Your task to perform on an android device: turn smart compose on in the gmail app Image 0: 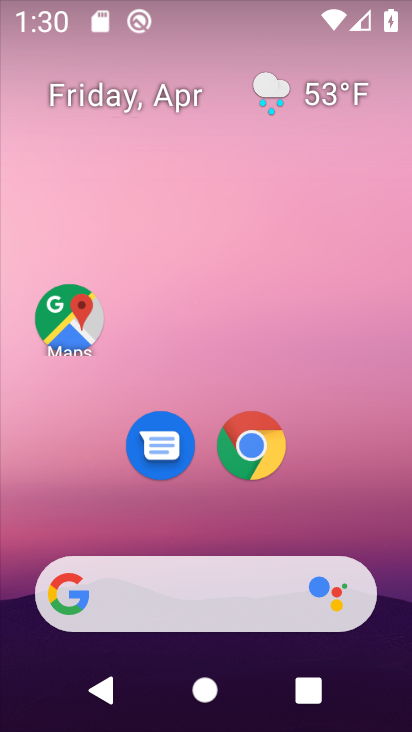
Step 0: drag from (380, 525) to (381, 97)
Your task to perform on an android device: turn smart compose on in the gmail app Image 1: 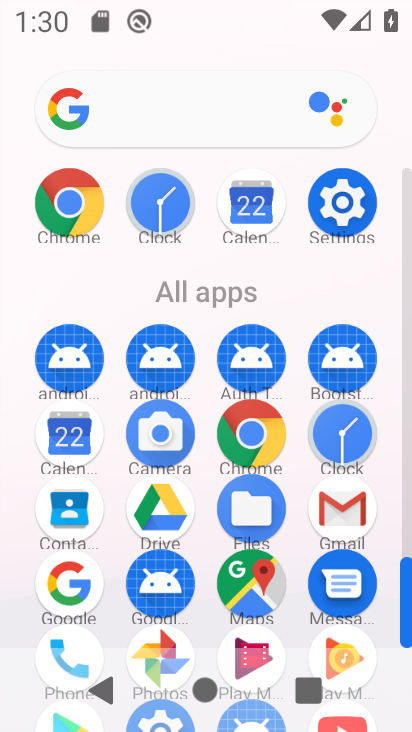
Step 1: click (337, 515)
Your task to perform on an android device: turn smart compose on in the gmail app Image 2: 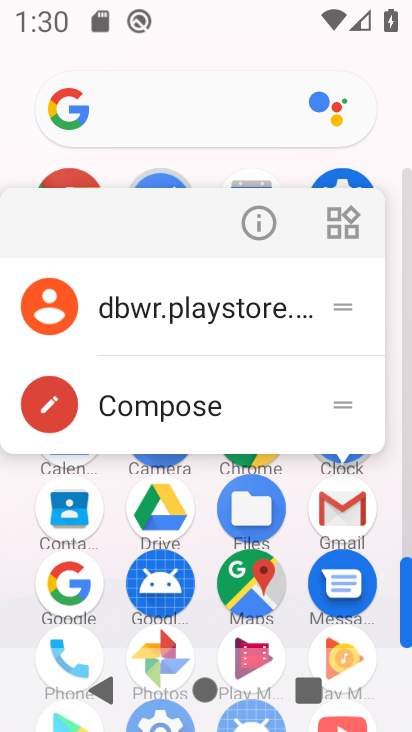
Step 2: click (344, 511)
Your task to perform on an android device: turn smart compose on in the gmail app Image 3: 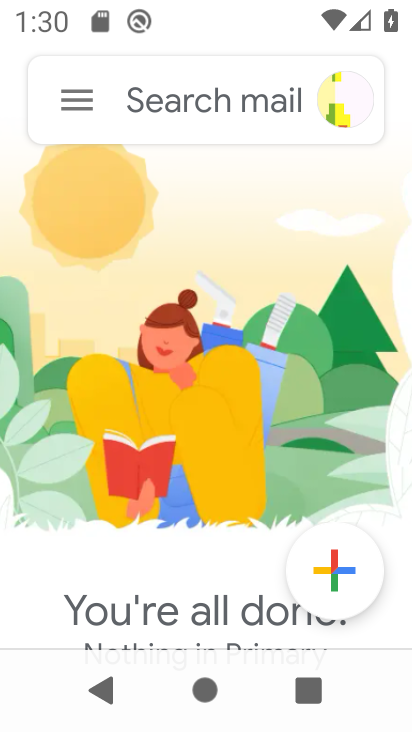
Step 3: click (83, 91)
Your task to perform on an android device: turn smart compose on in the gmail app Image 4: 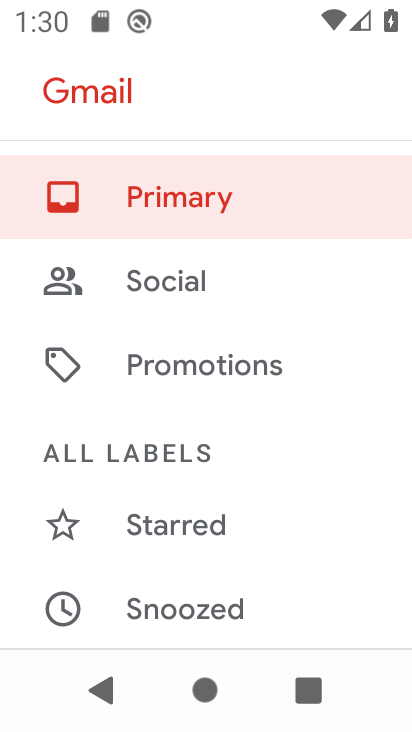
Step 4: drag from (339, 491) to (354, 349)
Your task to perform on an android device: turn smart compose on in the gmail app Image 5: 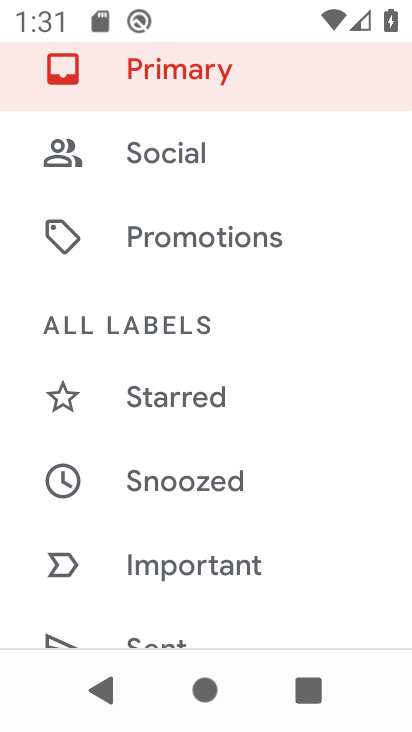
Step 5: drag from (354, 525) to (350, 364)
Your task to perform on an android device: turn smart compose on in the gmail app Image 6: 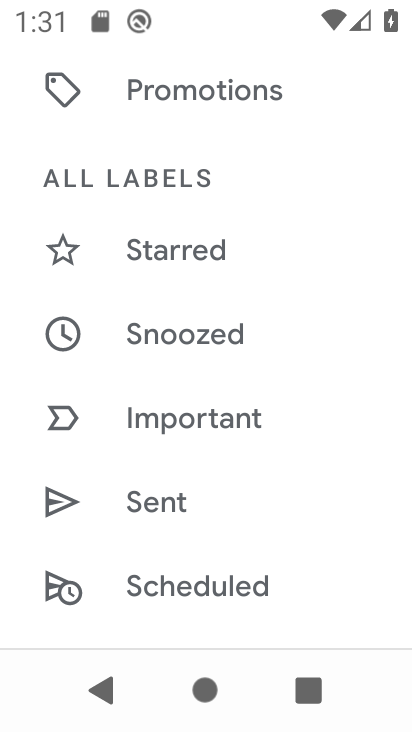
Step 6: drag from (336, 552) to (344, 391)
Your task to perform on an android device: turn smart compose on in the gmail app Image 7: 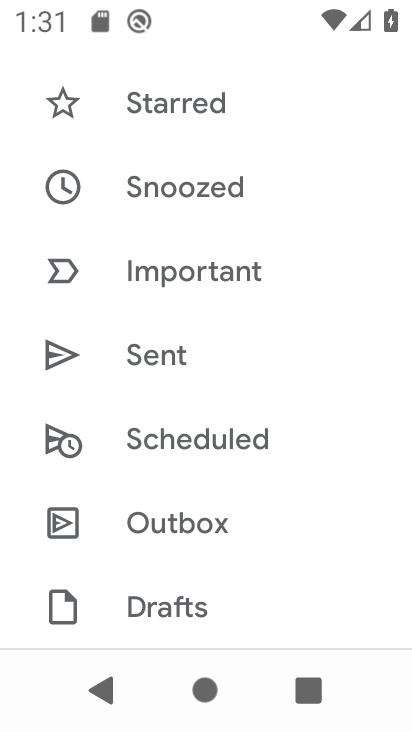
Step 7: drag from (330, 546) to (337, 377)
Your task to perform on an android device: turn smart compose on in the gmail app Image 8: 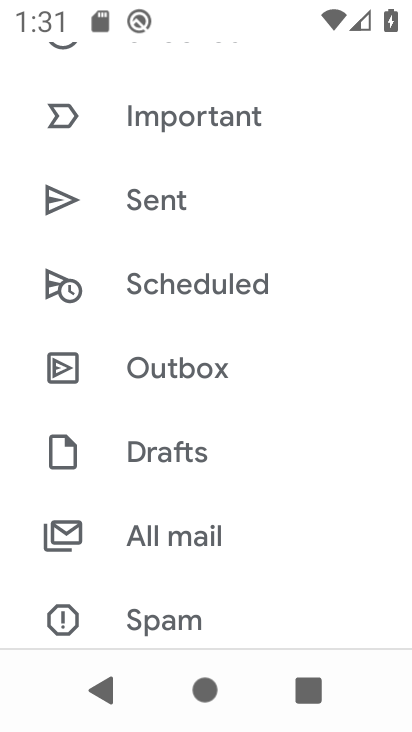
Step 8: drag from (337, 551) to (361, 375)
Your task to perform on an android device: turn smart compose on in the gmail app Image 9: 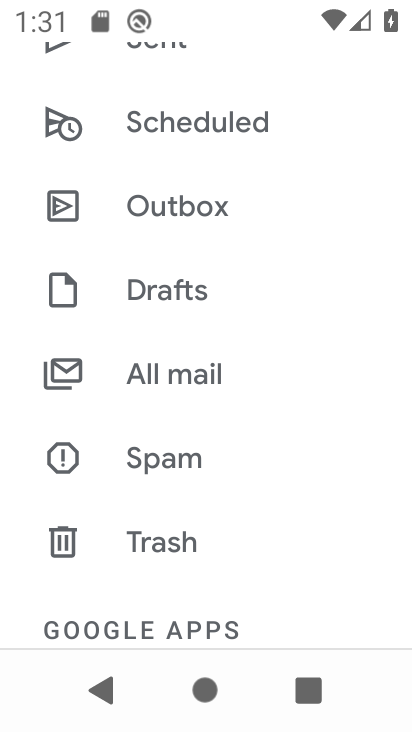
Step 9: drag from (340, 545) to (362, 323)
Your task to perform on an android device: turn smart compose on in the gmail app Image 10: 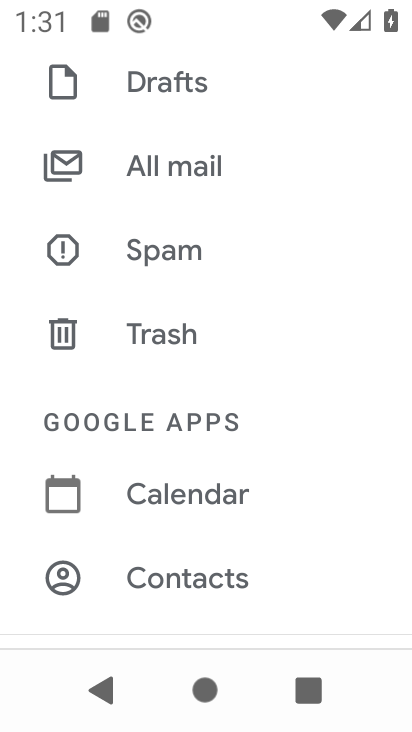
Step 10: drag from (324, 560) to (321, 346)
Your task to perform on an android device: turn smart compose on in the gmail app Image 11: 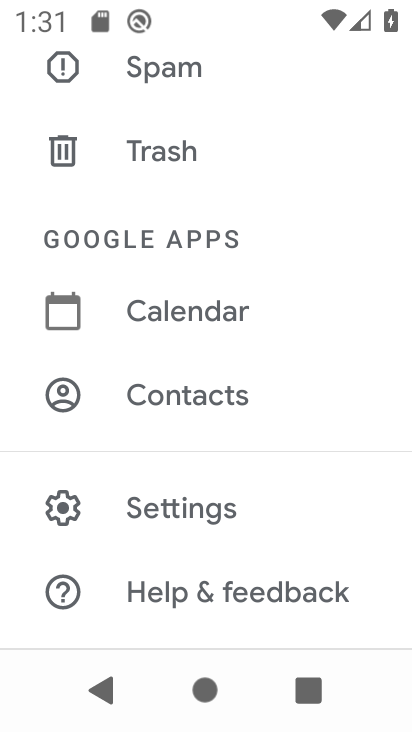
Step 11: click (235, 505)
Your task to perform on an android device: turn smart compose on in the gmail app Image 12: 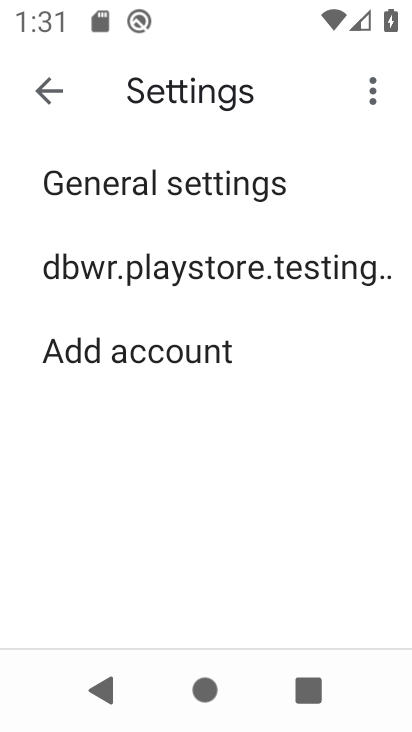
Step 12: click (235, 283)
Your task to perform on an android device: turn smart compose on in the gmail app Image 13: 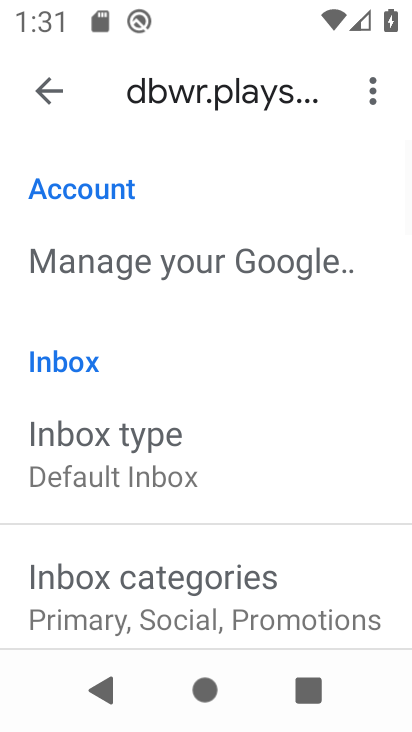
Step 13: task complete